Your task to perform on an android device: clear all cookies in the chrome app Image 0: 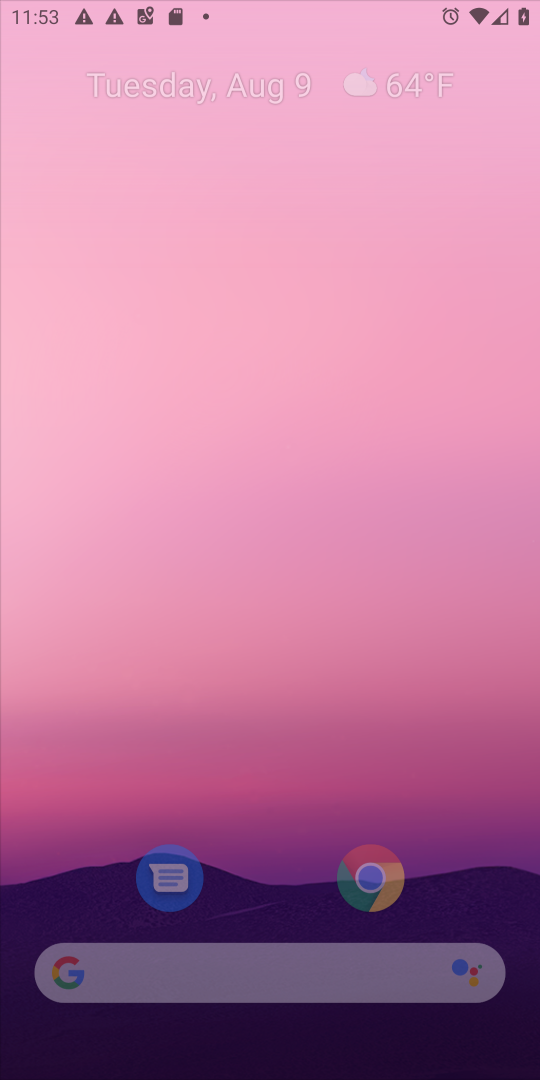
Step 0: drag from (398, 528) to (358, 155)
Your task to perform on an android device: clear all cookies in the chrome app Image 1: 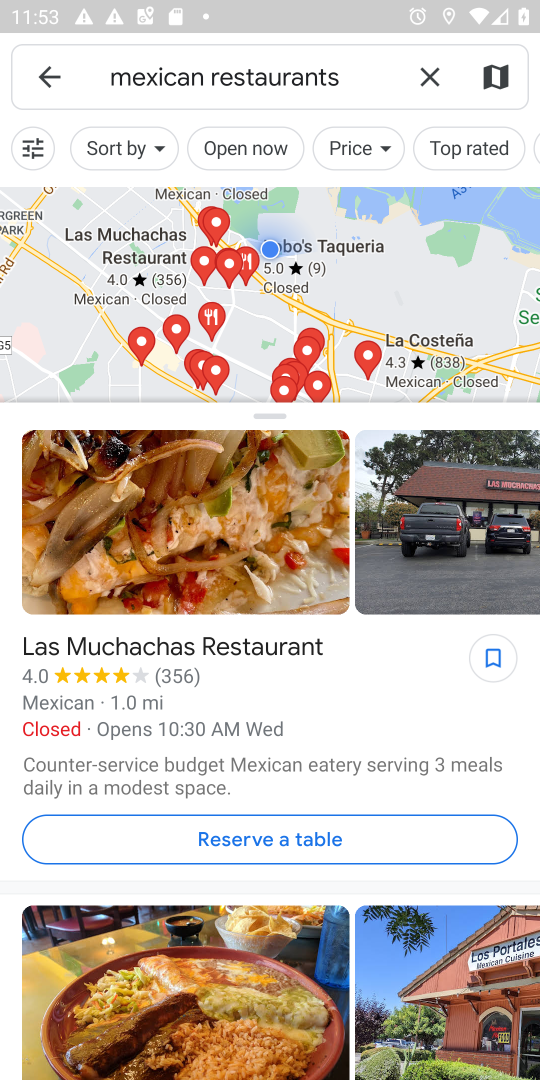
Step 1: press home button
Your task to perform on an android device: clear all cookies in the chrome app Image 2: 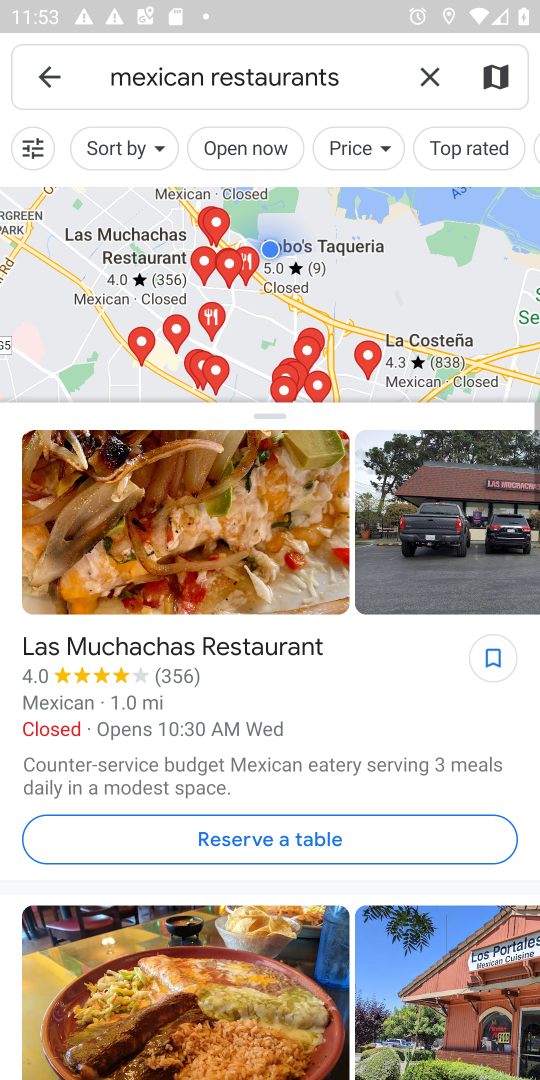
Step 2: press home button
Your task to perform on an android device: clear all cookies in the chrome app Image 3: 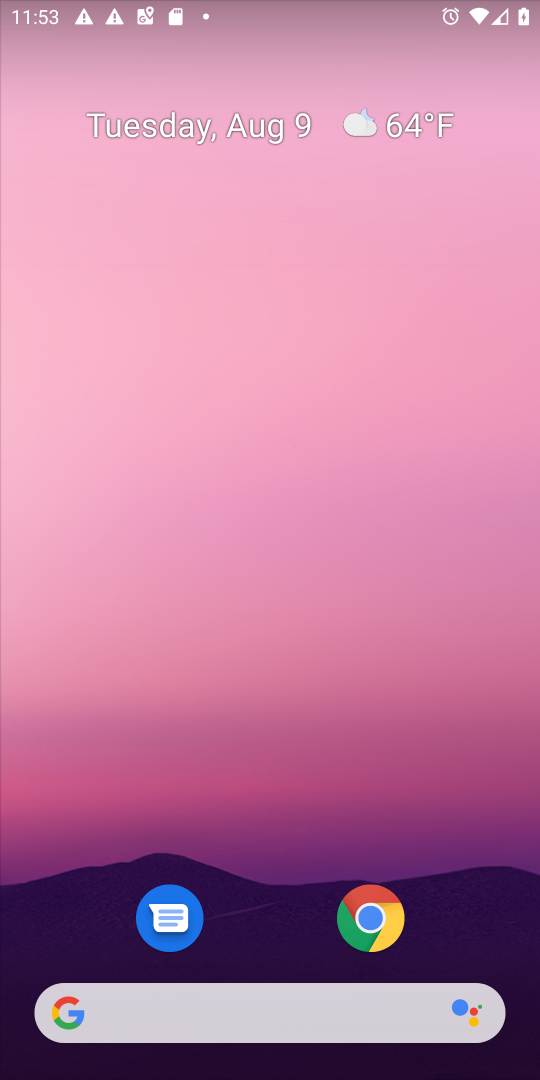
Step 3: drag from (272, 849) to (269, 238)
Your task to perform on an android device: clear all cookies in the chrome app Image 4: 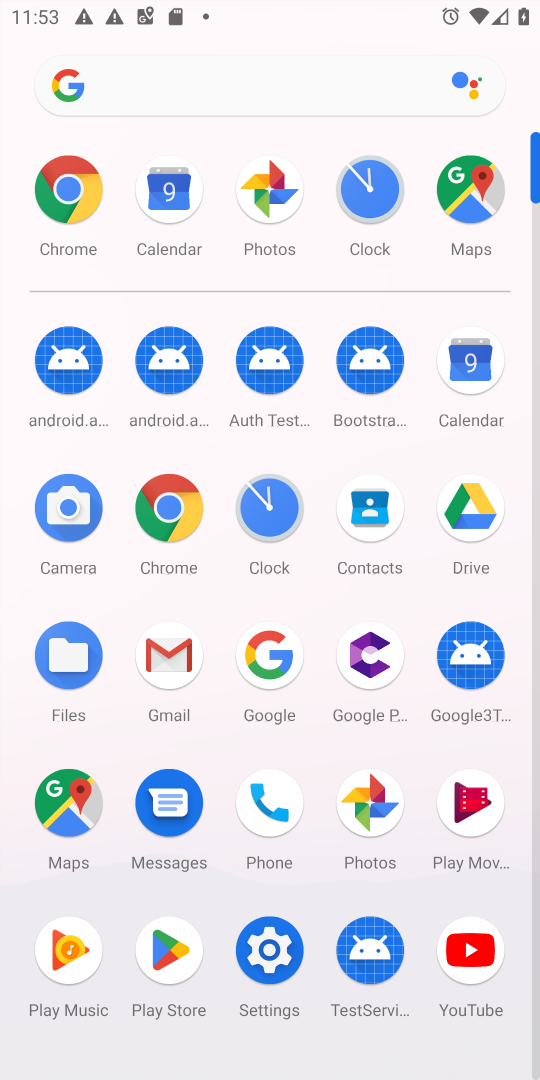
Step 4: click (74, 185)
Your task to perform on an android device: clear all cookies in the chrome app Image 5: 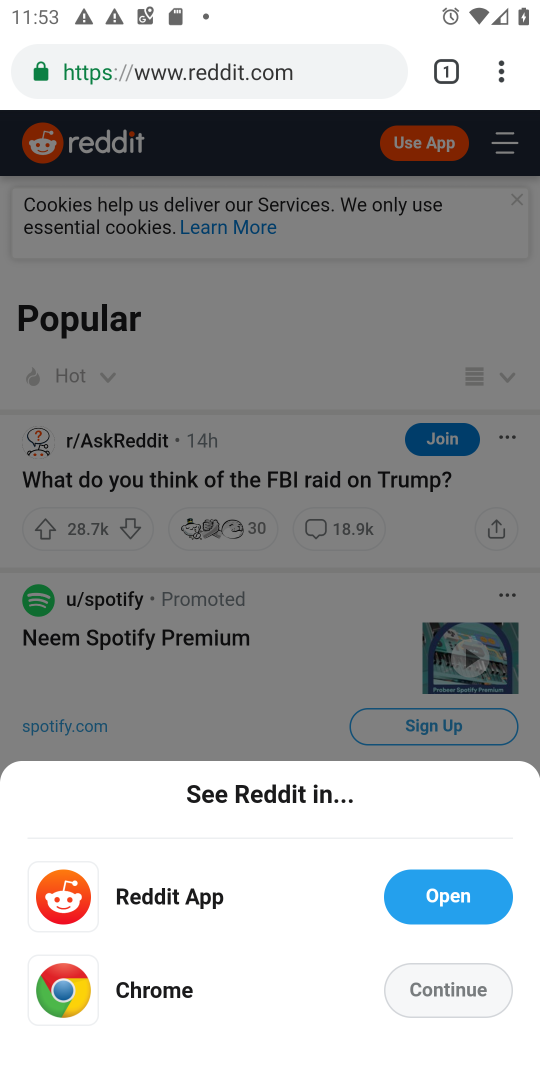
Step 5: drag from (509, 59) to (263, 472)
Your task to perform on an android device: clear all cookies in the chrome app Image 6: 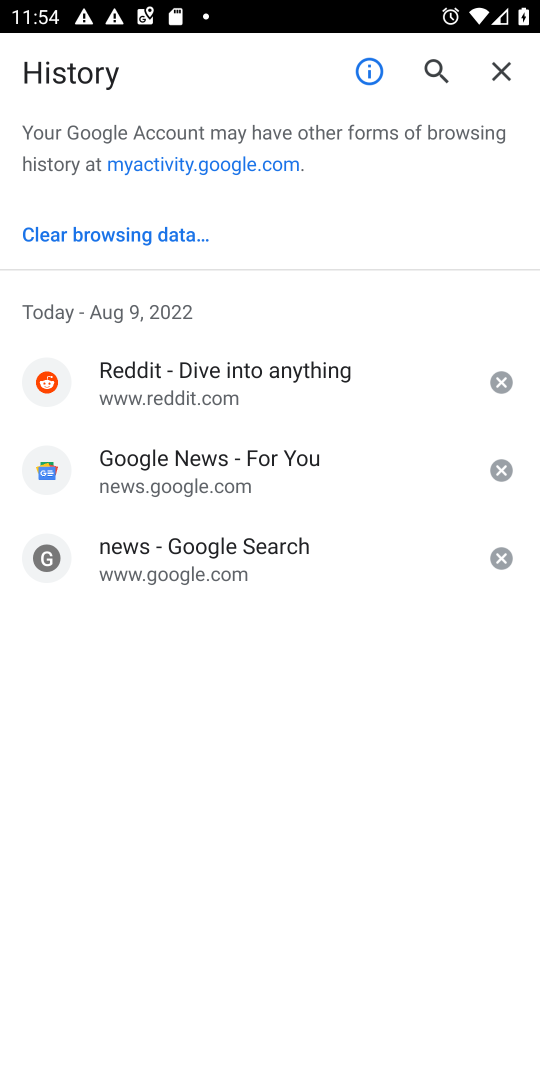
Step 6: click (145, 227)
Your task to perform on an android device: clear all cookies in the chrome app Image 7: 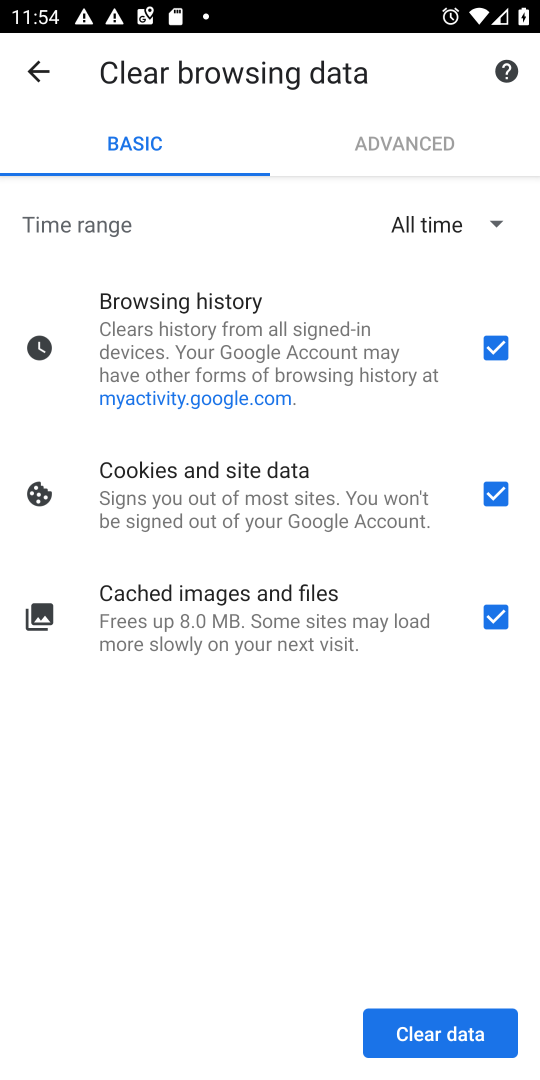
Step 7: click (455, 1044)
Your task to perform on an android device: clear all cookies in the chrome app Image 8: 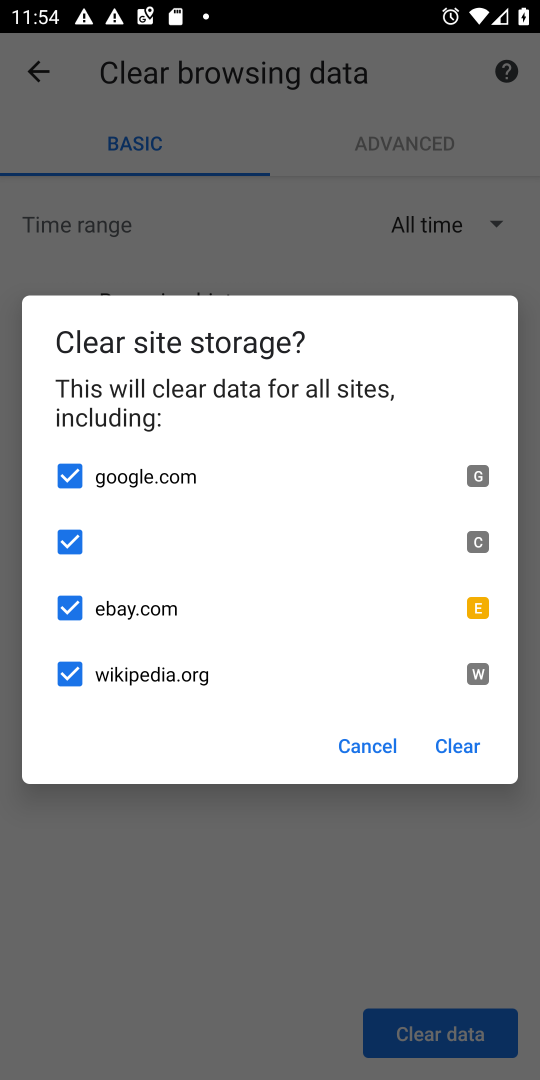
Step 8: click (458, 745)
Your task to perform on an android device: clear all cookies in the chrome app Image 9: 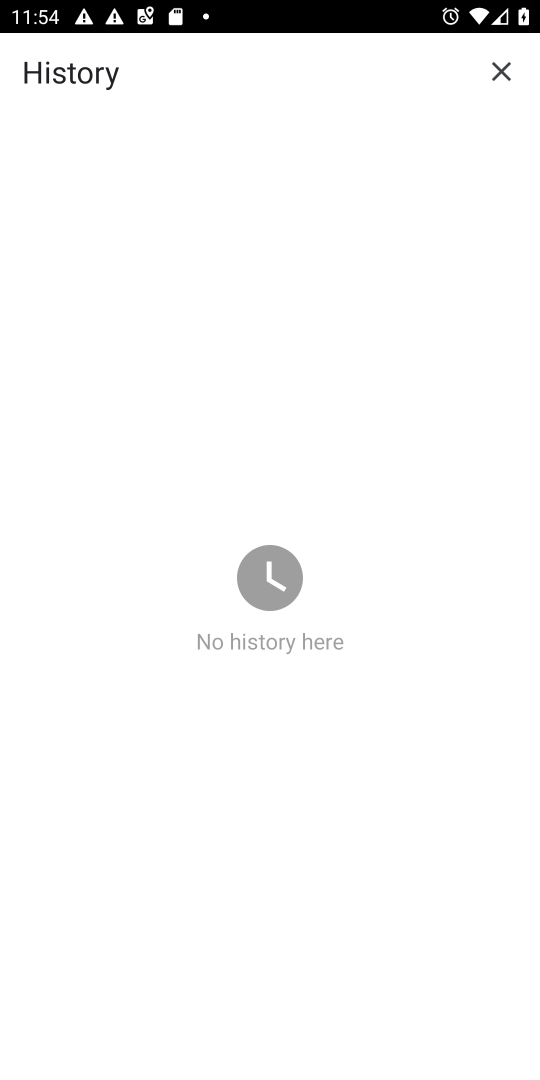
Step 9: task complete